Your task to perform on an android device: turn off javascript in the chrome app Image 0: 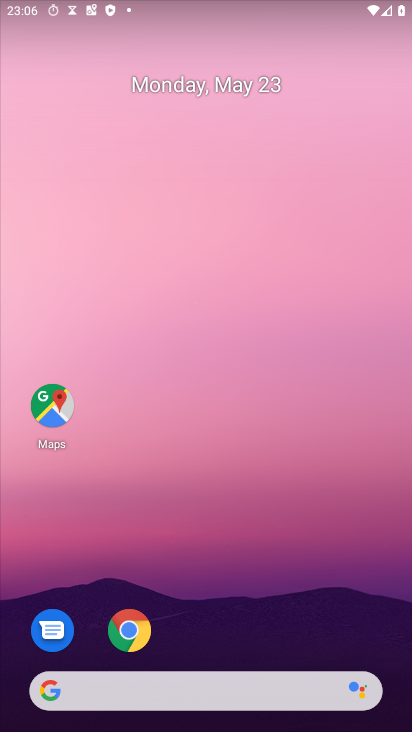
Step 0: click (124, 636)
Your task to perform on an android device: turn off javascript in the chrome app Image 1: 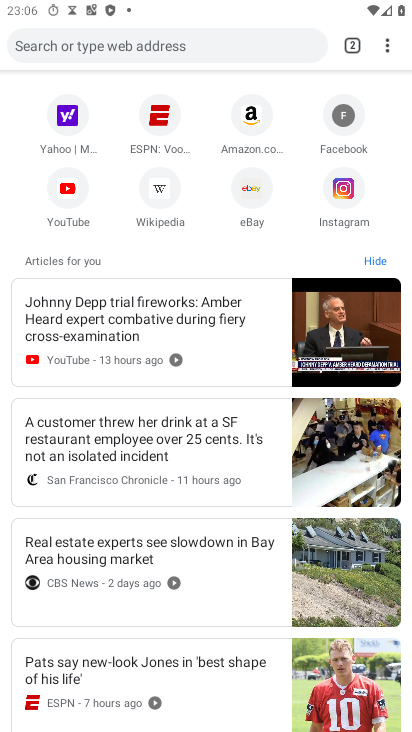
Step 1: click (388, 45)
Your task to perform on an android device: turn off javascript in the chrome app Image 2: 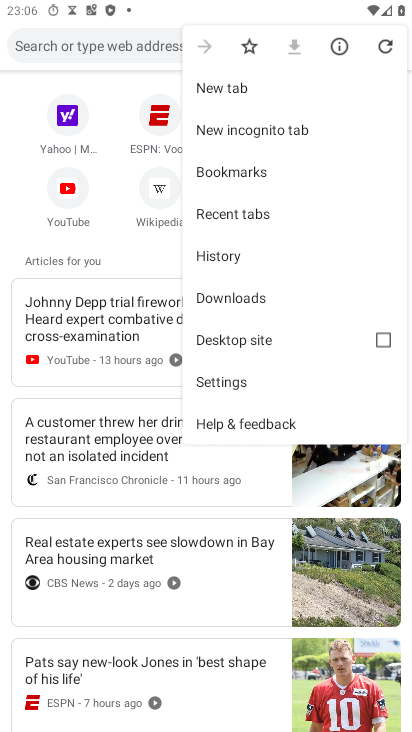
Step 2: click (227, 377)
Your task to perform on an android device: turn off javascript in the chrome app Image 3: 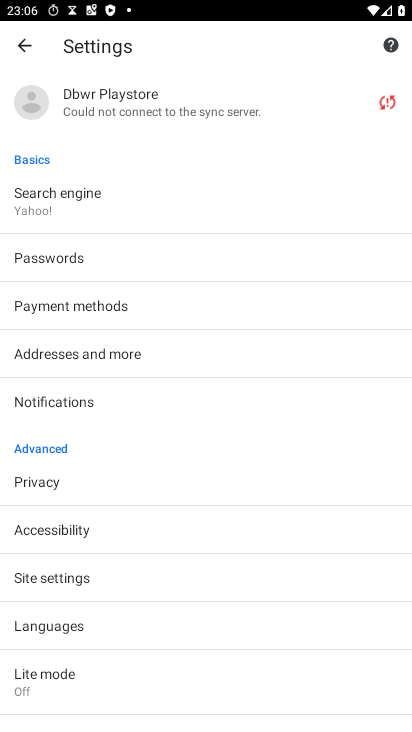
Step 3: click (52, 583)
Your task to perform on an android device: turn off javascript in the chrome app Image 4: 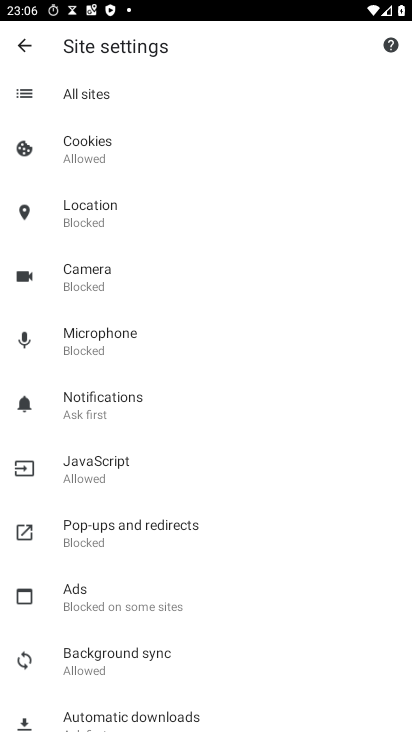
Step 4: click (86, 473)
Your task to perform on an android device: turn off javascript in the chrome app Image 5: 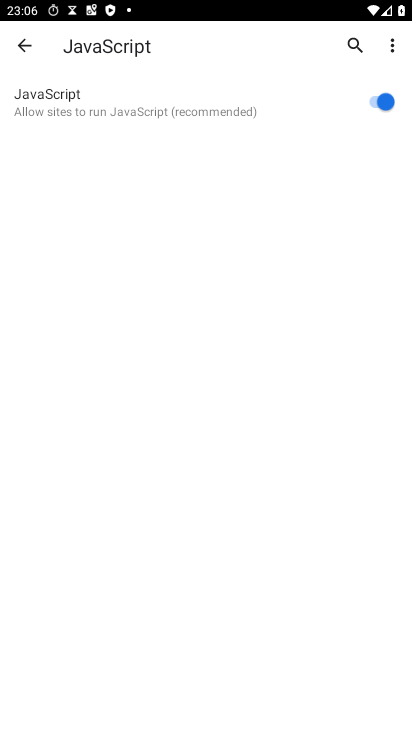
Step 5: click (394, 110)
Your task to perform on an android device: turn off javascript in the chrome app Image 6: 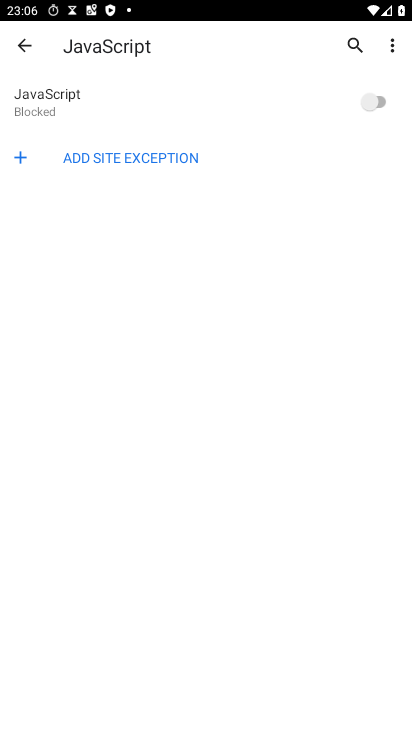
Step 6: task complete